Your task to perform on an android device: turn notification dots off Image 0: 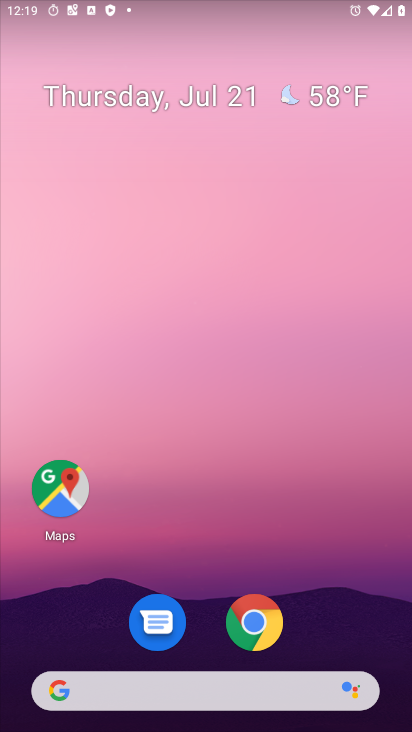
Step 0: drag from (212, 360) to (247, 306)
Your task to perform on an android device: turn notification dots off Image 1: 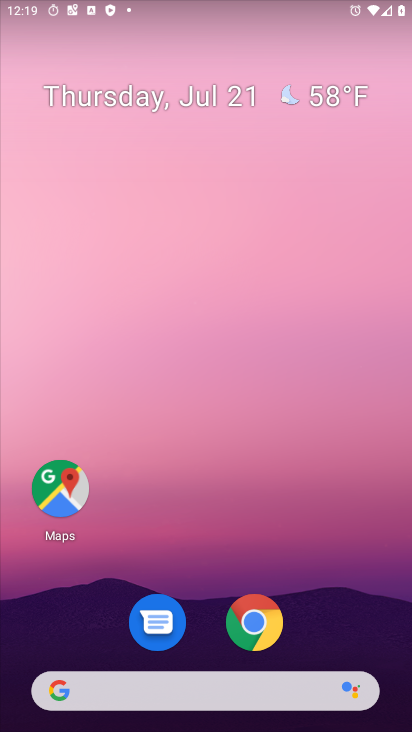
Step 1: drag from (156, 441) to (172, 408)
Your task to perform on an android device: turn notification dots off Image 2: 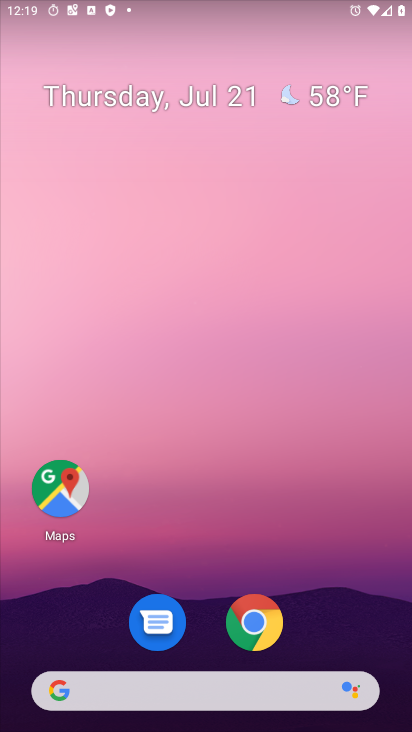
Step 2: drag from (25, 667) to (215, 286)
Your task to perform on an android device: turn notification dots off Image 3: 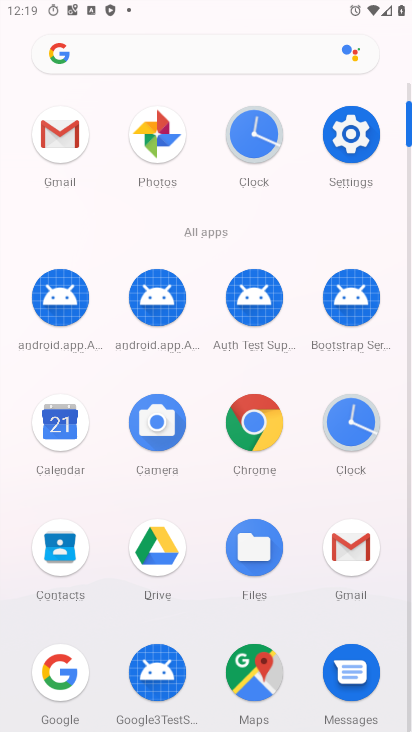
Step 3: click (341, 139)
Your task to perform on an android device: turn notification dots off Image 4: 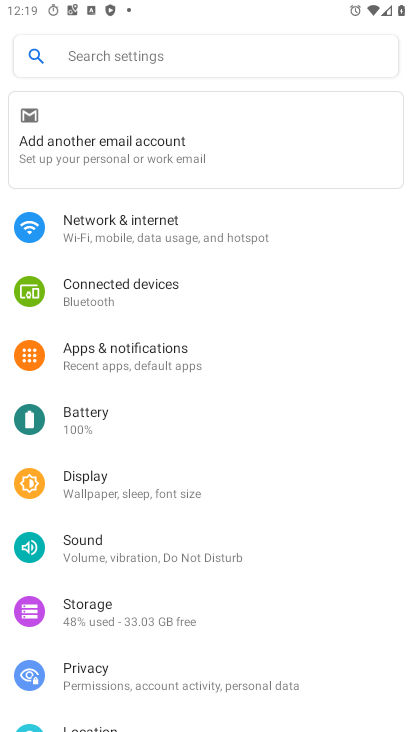
Step 4: click (134, 358)
Your task to perform on an android device: turn notification dots off Image 5: 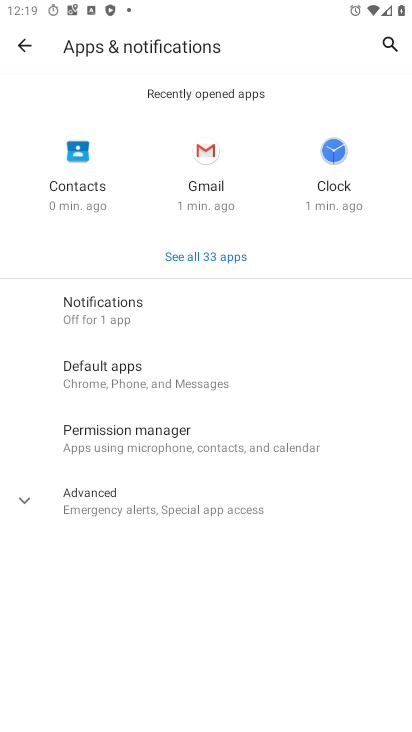
Step 5: click (141, 314)
Your task to perform on an android device: turn notification dots off Image 6: 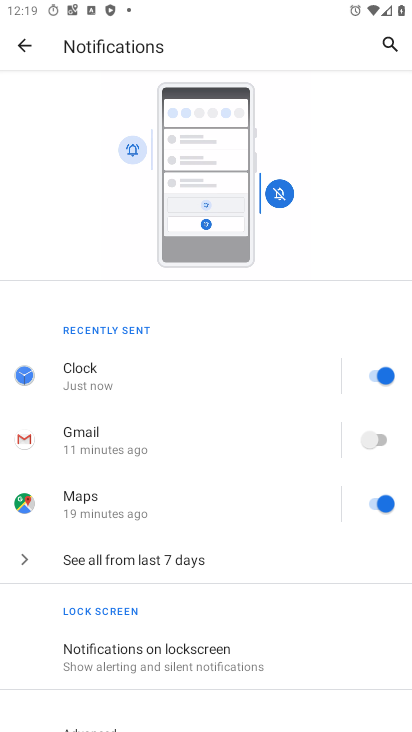
Step 6: click (266, 407)
Your task to perform on an android device: turn notification dots off Image 7: 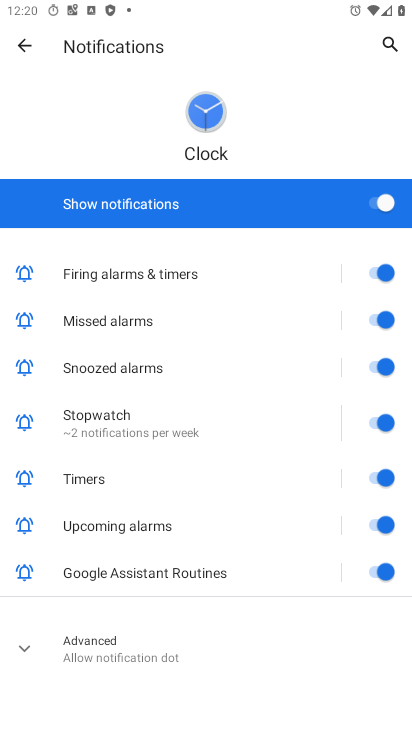
Step 7: click (111, 657)
Your task to perform on an android device: turn notification dots off Image 8: 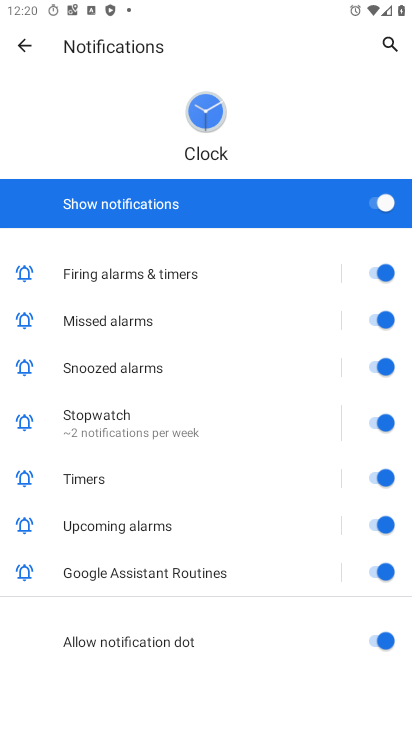
Step 8: click (386, 635)
Your task to perform on an android device: turn notification dots off Image 9: 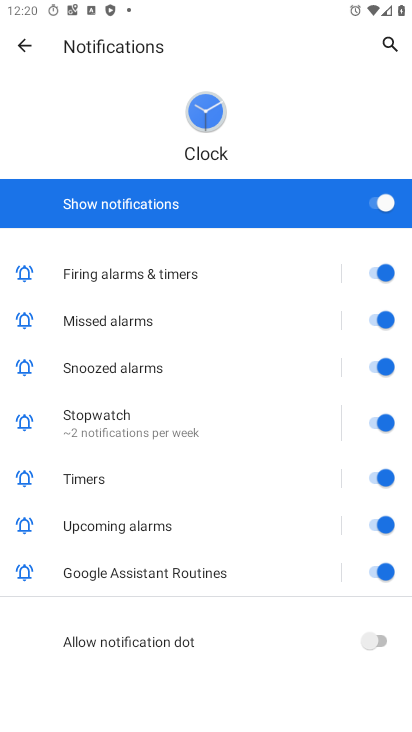
Step 9: task complete